Your task to perform on an android device: empty trash in google photos Image 0: 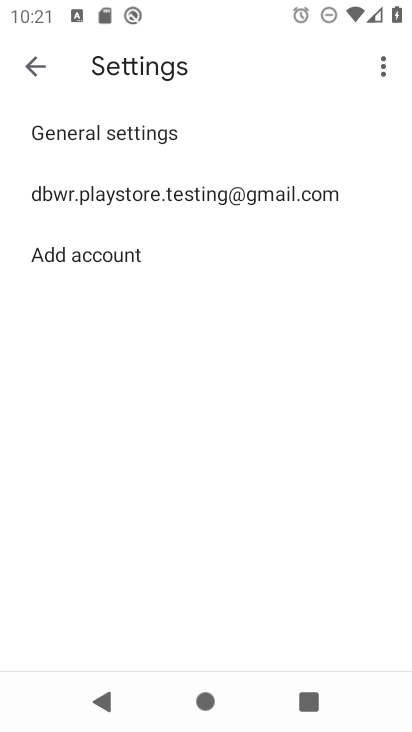
Step 0: press home button
Your task to perform on an android device: empty trash in google photos Image 1: 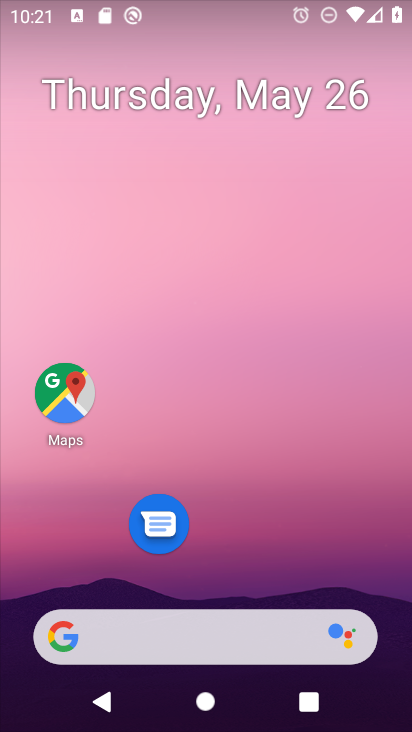
Step 1: drag from (264, 544) to (230, 0)
Your task to perform on an android device: empty trash in google photos Image 2: 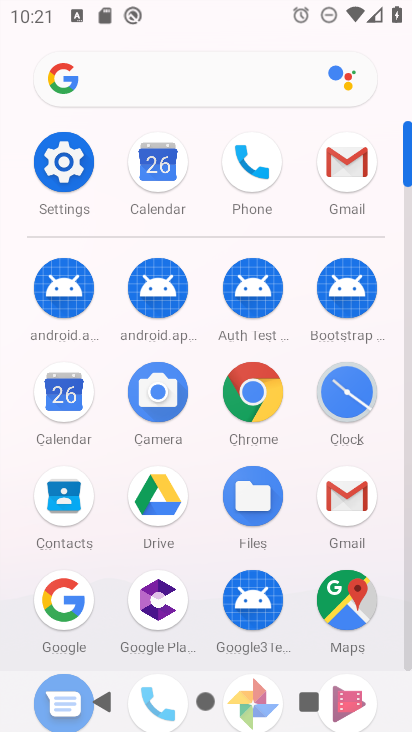
Step 2: drag from (281, 385) to (292, 132)
Your task to perform on an android device: empty trash in google photos Image 3: 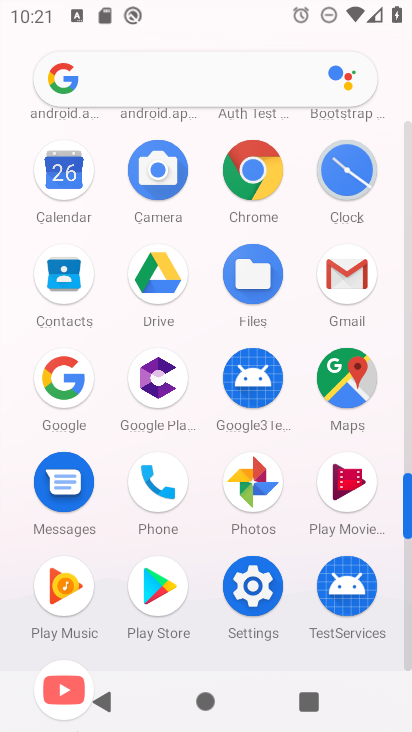
Step 3: click (259, 476)
Your task to perform on an android device: empty trash in google photos Image 4: 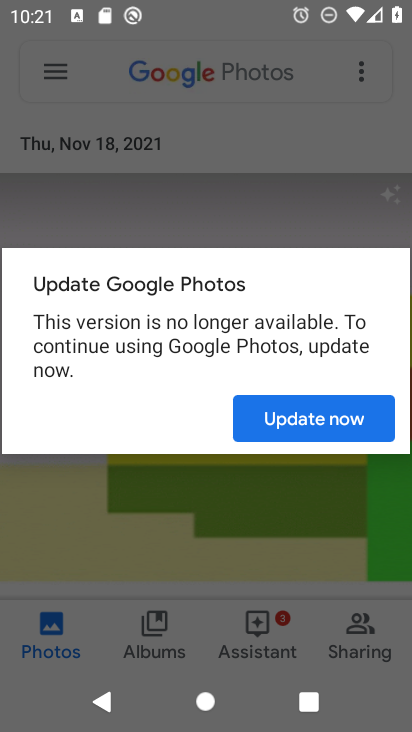
Step 4: click (324, 407)
Your task to perform on an android device: empty trash in google photos Image 5: 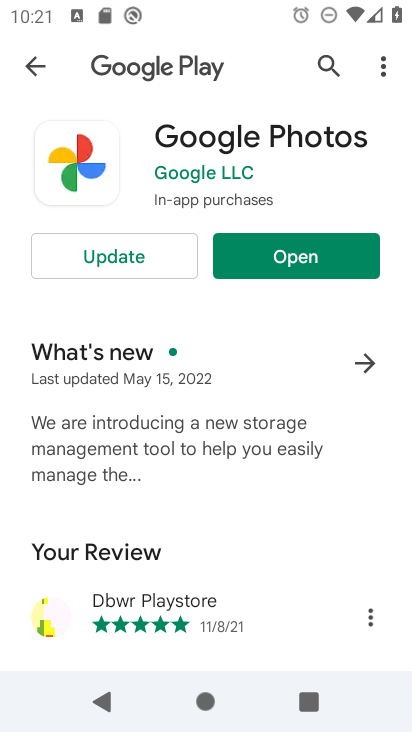
Step 5: click (308, 256)
Your task to perform on an android device: empty trash in google photos Image 6: 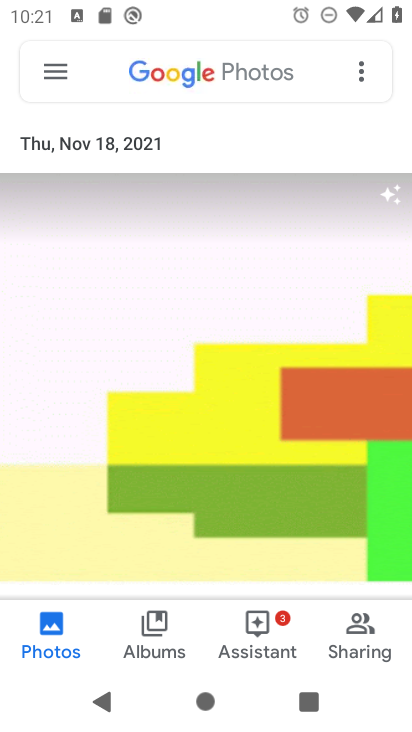
Step 6: click (58, 78)
Your task to perform on an android device: empty trash in google photos Image 7: 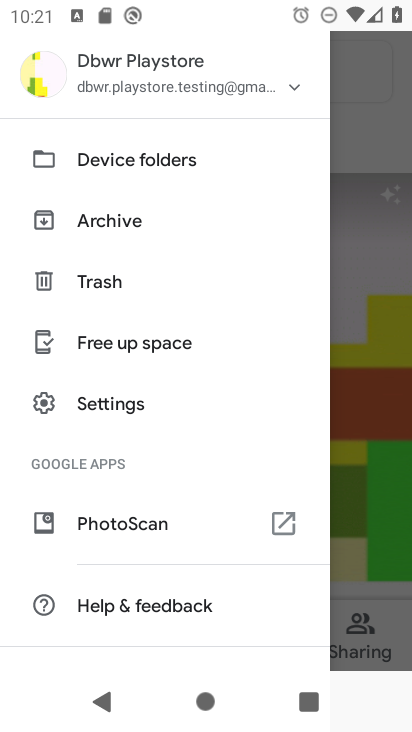
Step 7: click (127, 278)
Your task to perform on an android device: empty trash in google photos Image 8: 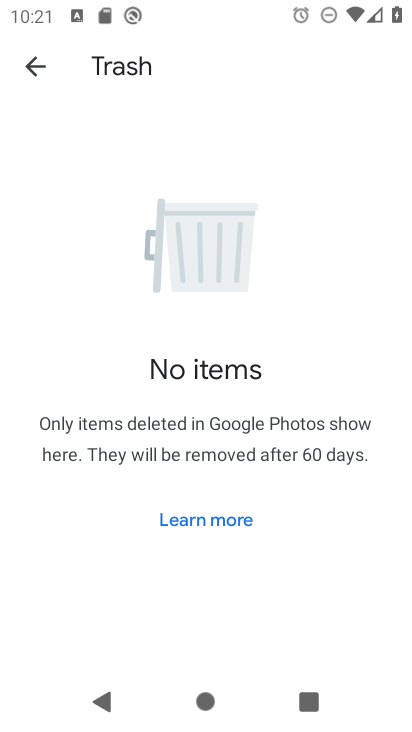
Step 8: task complete